Your task to perform on an android device: turn on translation in the chrome app Image 0: 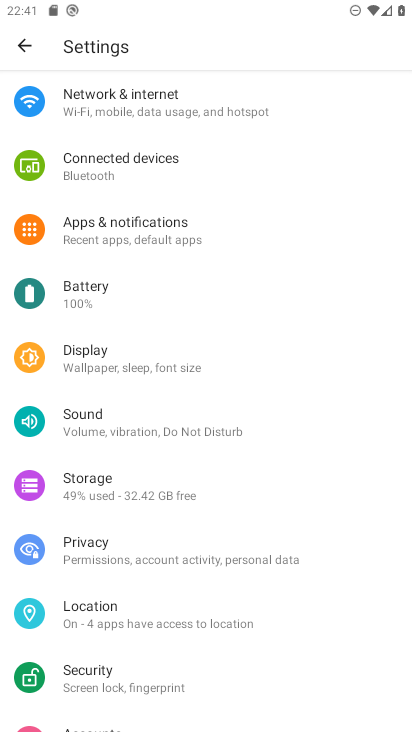
Step 0: press home button
Your task to perform on an android device: turn on translation in the chrome app Image 1: 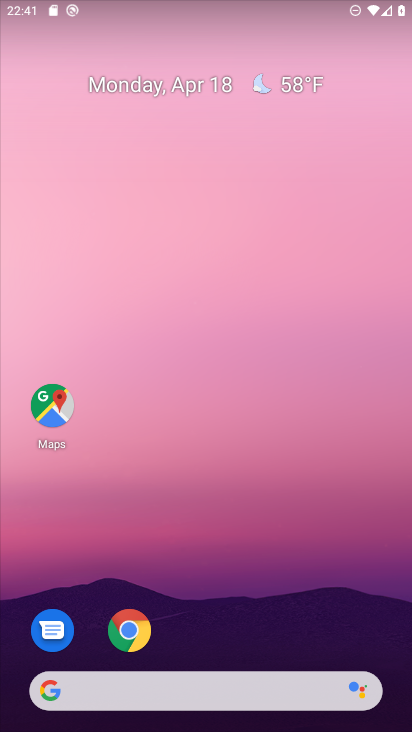
Step 1: click (138, 641)
Your task to perform on an android device: turn on translation in the chrome app Image 2: 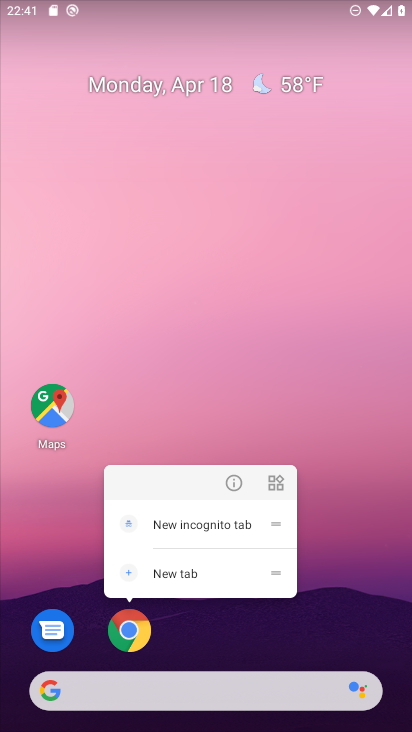
Step 2: click (134, 636)
Your task to perform on an android device: turn on translation in the chrome app Image 3: 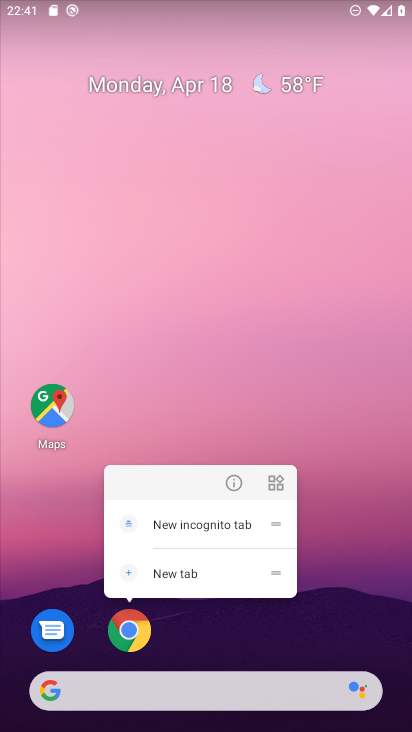
Step 3: click (127, 621)
Your task to perform on an android device: turn on translation in the chrome app Image 4: 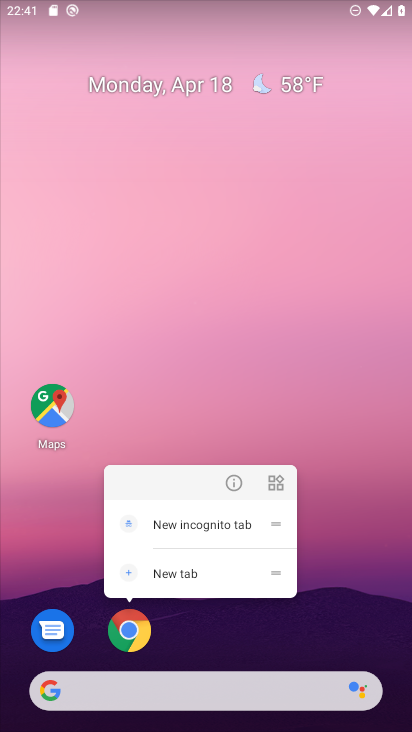
Step 4: click (127, 646)
Your task to perform on an android device: turn on translation in the chrome app Image 5: 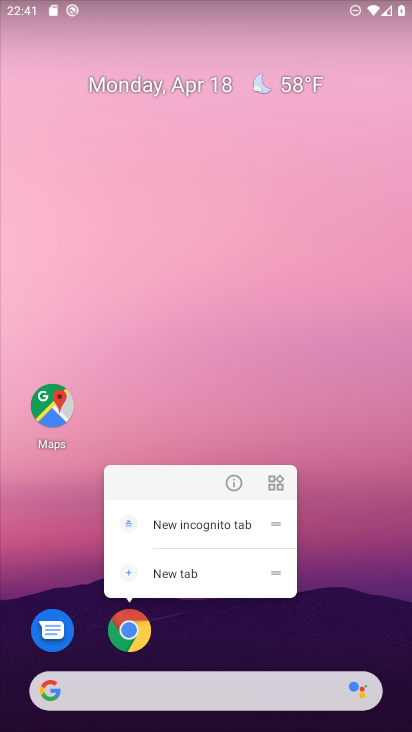
Step 5: click (125, 642)
Your task to perform on an android device: turn on translation in the chrome app Image 6: 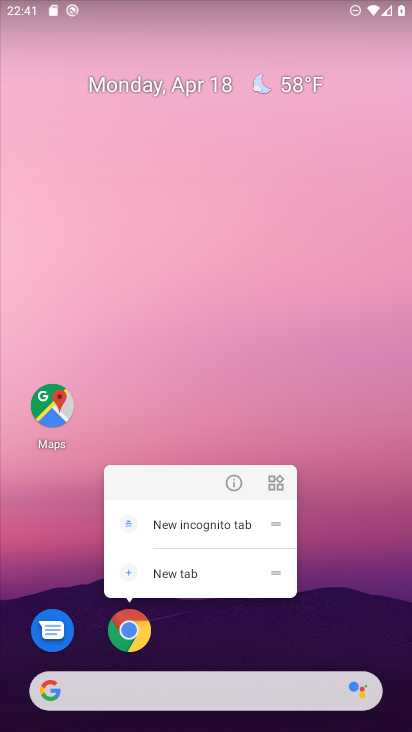
Step 6: click (125, 640)
Your task to perform on an android device: turn on translation in the chrome app Image 7: 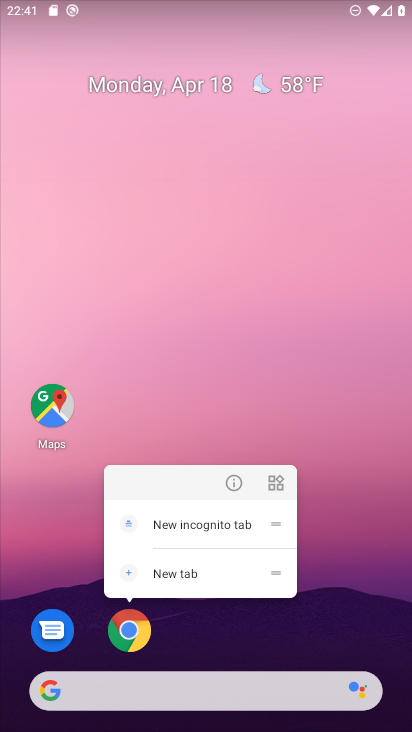
Step 7: click (126, 637)
Your task to perform on an android device: turn on translation in the chrome app Image 8: 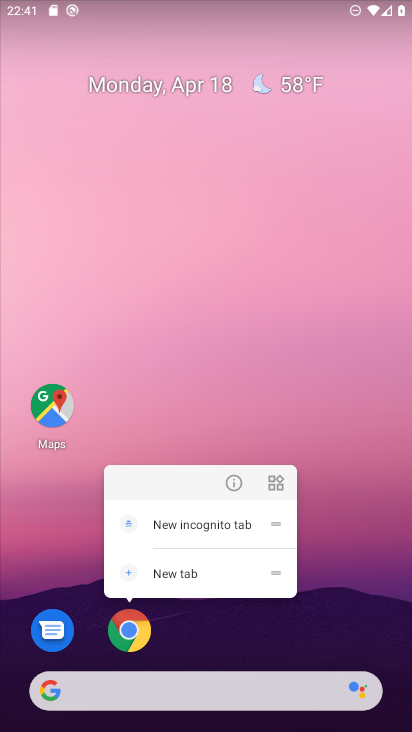
Step 8: click (127, 634)
Your task to perform on an android device: turn on translation in the chrome app Image 9: 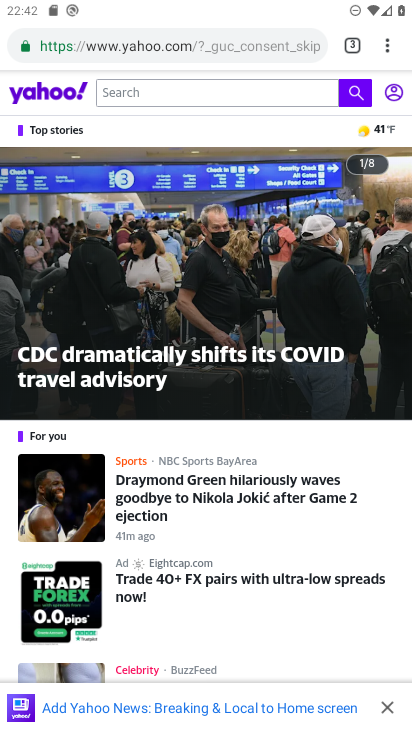
Step 9: click (381, 37)
Your task to perform on an android device: turn on translation in the chrome app Image 10: 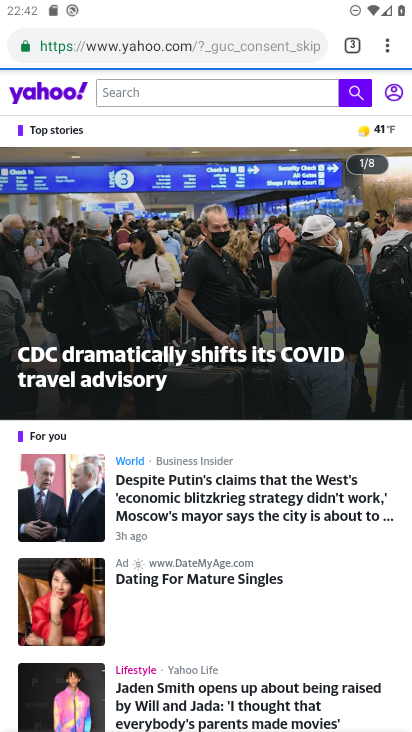
Step 10: click (385, 50)
Your task to perform on an android device: turn on translation in the chrome app Image 11: 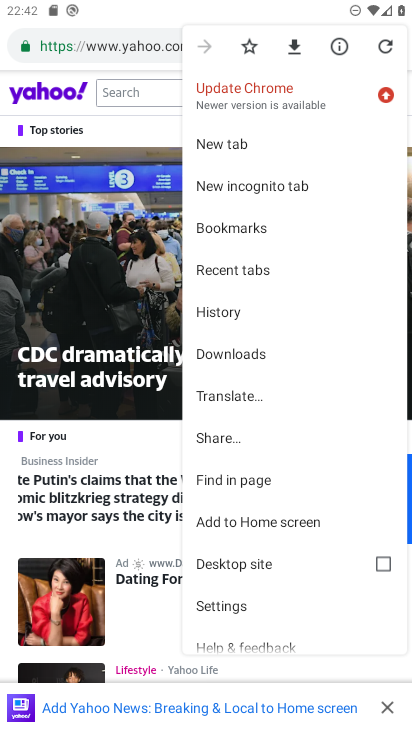
Step 11: click (215, 594)
Your task to perform on an android device: turn on translation in the chrome app Image 12: 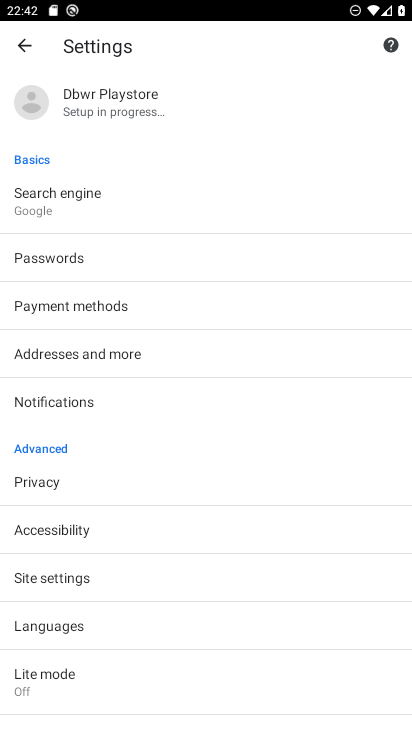
Step 12: click (72, 585)
Your task to perform on an android device: turn on translation in the chrome app Image 13: 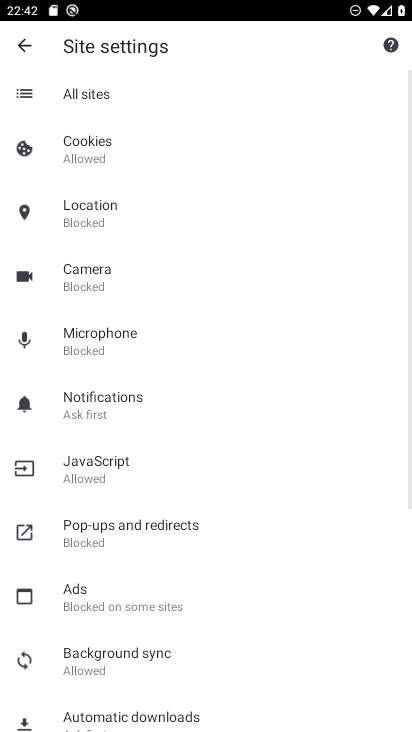
Step 13: drag from (106, 554) to (99, 87)
Your task to perform on an android device: turn on translation in the chrome app Image 14: 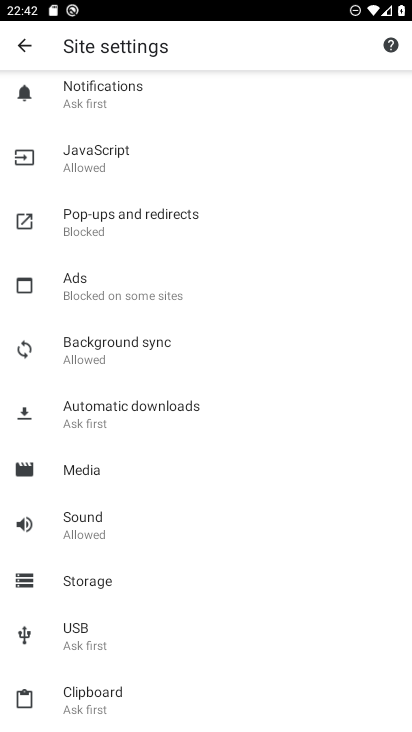
Step 14: click (29, 44)
Your task to perform on an android device: turn on translation in the chrome app Image 15: 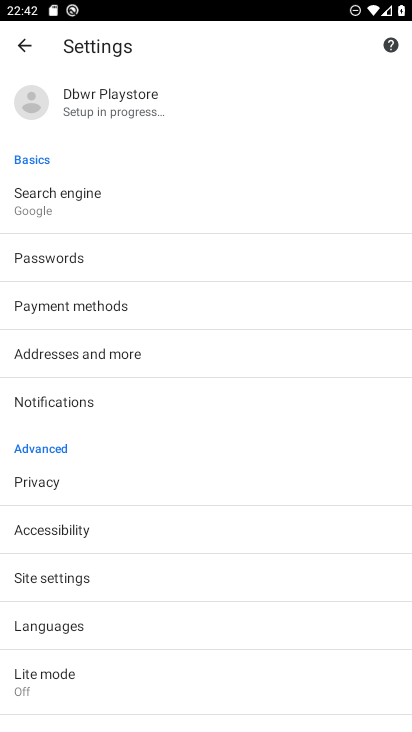
Step 15: click (50, 630)
Your task to perform on an android device: turn on translation in the chrome app Image 16: 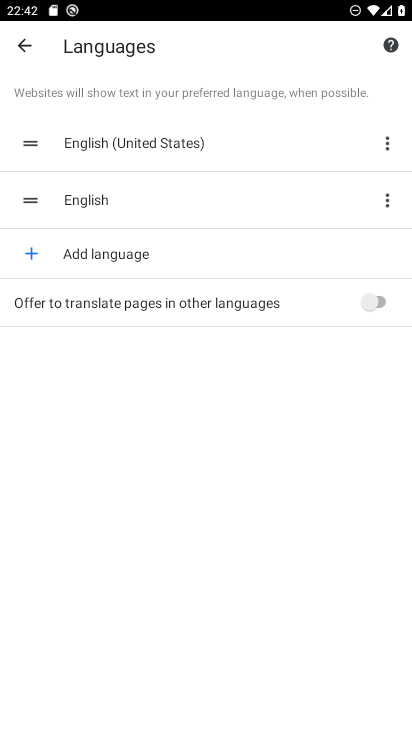
Step 16: click (370, 301)
Your task to perform on an android device: turn on translation in the chrome app Image 17: 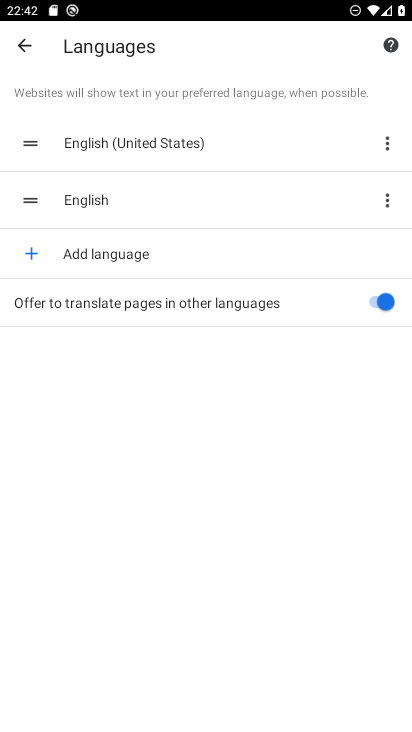
Step 17: task complete